Your task to perform on an android device: Open my contact list Image 0: 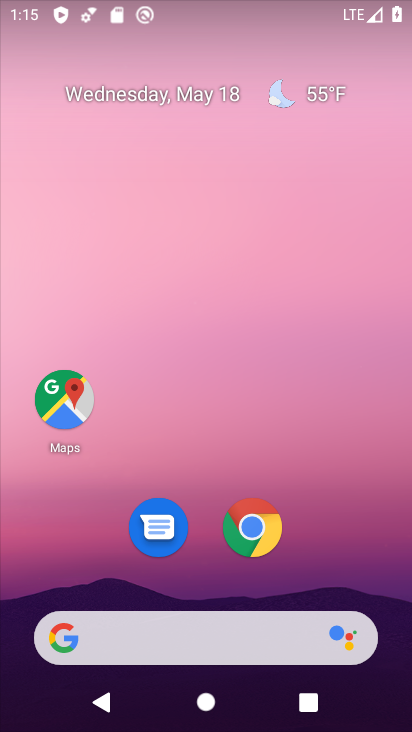
Step 0: drag from (332, 562) to (285, 47)
Your task to perform on an android device: Open my contact list Image 1: 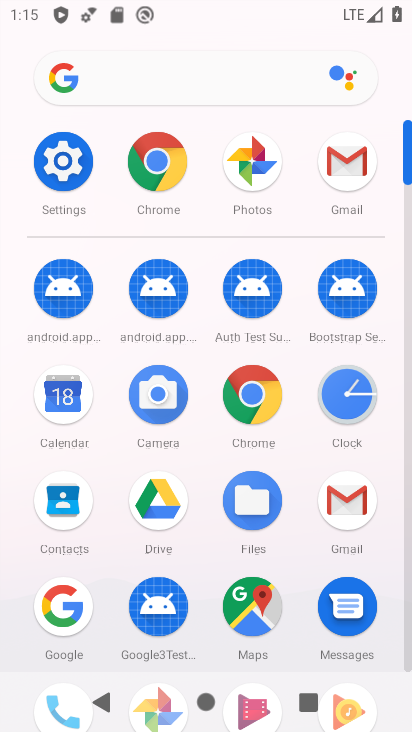
Step 1: click (60, 489)
Your task to perform on an android device: Open my contact list Image 2: 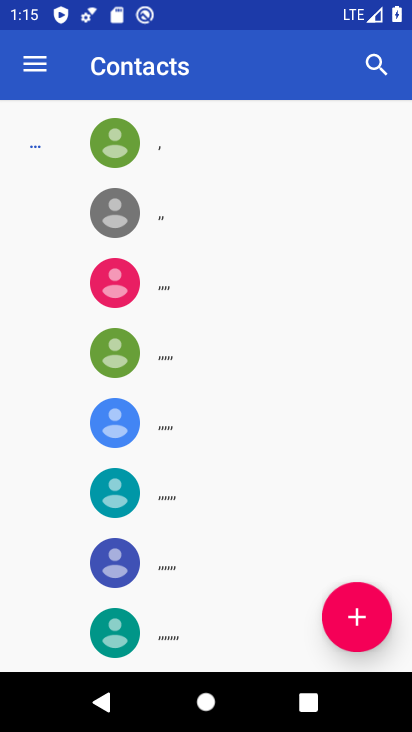
Step 2: task complete